Your task to perform on an android device: all mails in gmail Image 0: 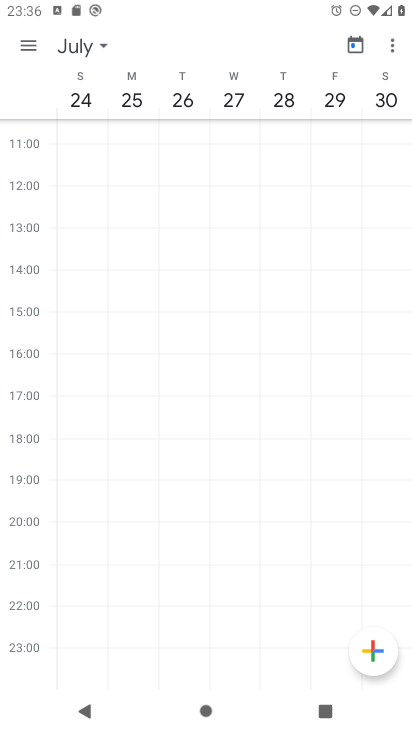
Step 0: press home button
Your task to perform on an android device: all mails in gmail Image 1: 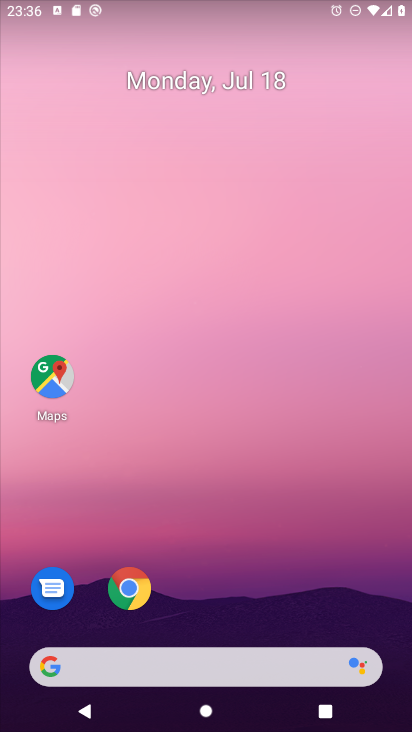
Step 1: drag from (378, 627) to (364, 144)
Your task to perform on an android device: all mails in gmail Image 2: 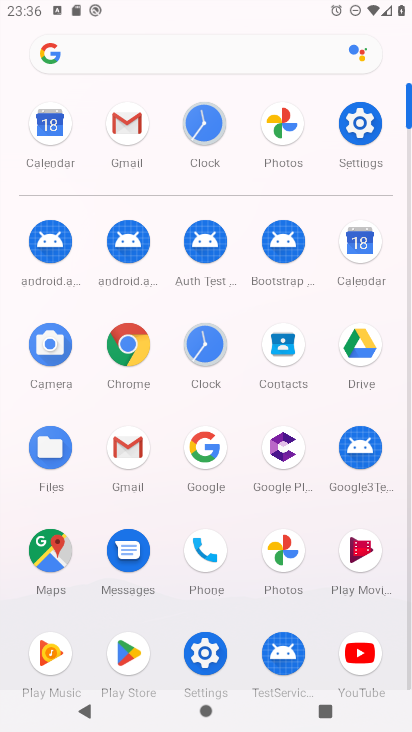
Step 2: click (126, 445)
Your task to perform on an android device: all mails in gmail Image 3: 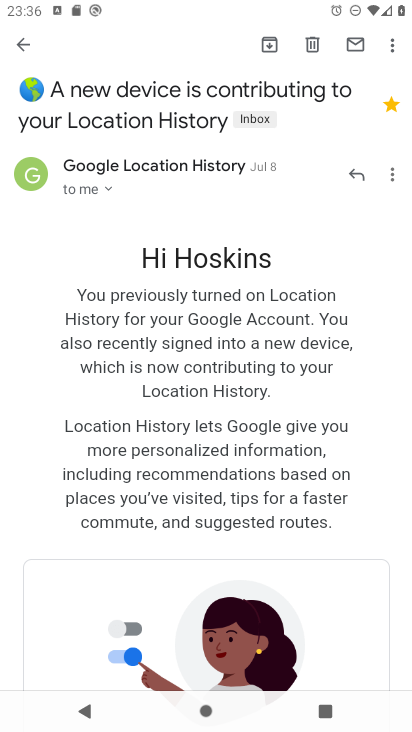
Step 3: press back button
Your task to perform on an android device: all mails in gmail Image 4: 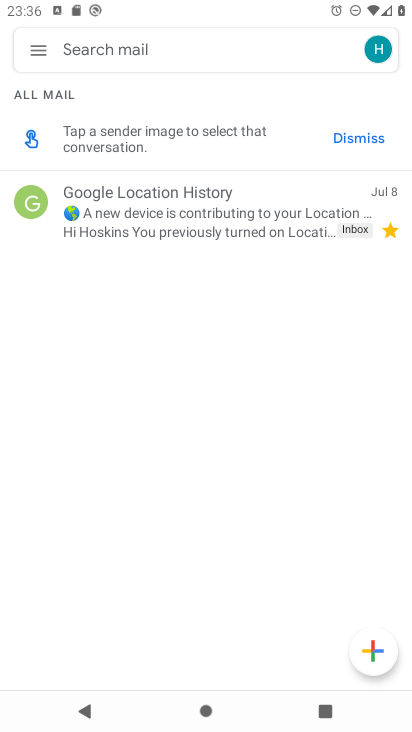
Step 4: click (39, 51)
Your task to perform on an android device: all mails in gmail Image 5: 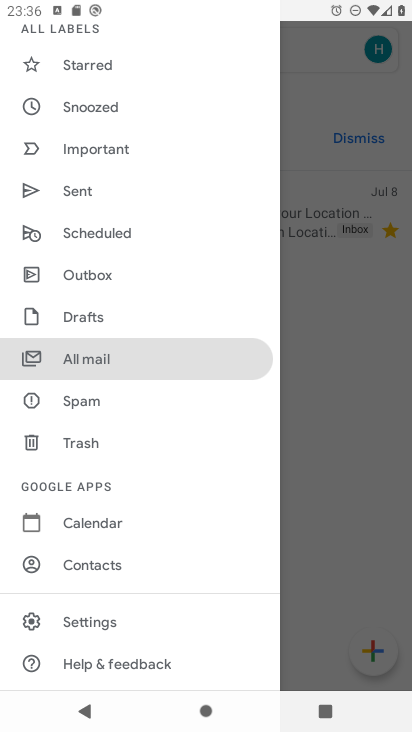
Step 5: click (136, 358)
Your task to perform on an android device: all mails in gmail Image 6: 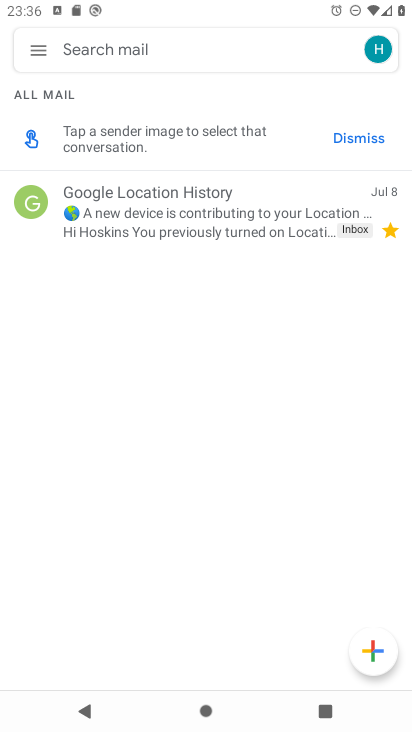
Step 6: task complete